Your task to perform on an android device: install app "Adobe Acrobat Reader: Edit PDF" Image 0: 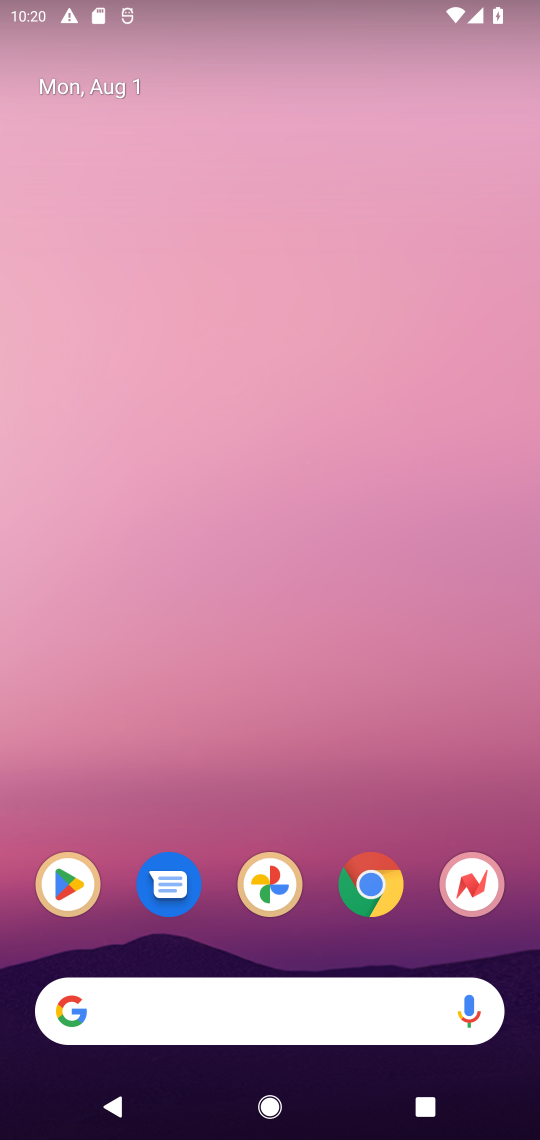
Step 0: press home button
Your task to perform on an android device: install app "Adobe Acrobat Reader: Edit PDF" Image 1: 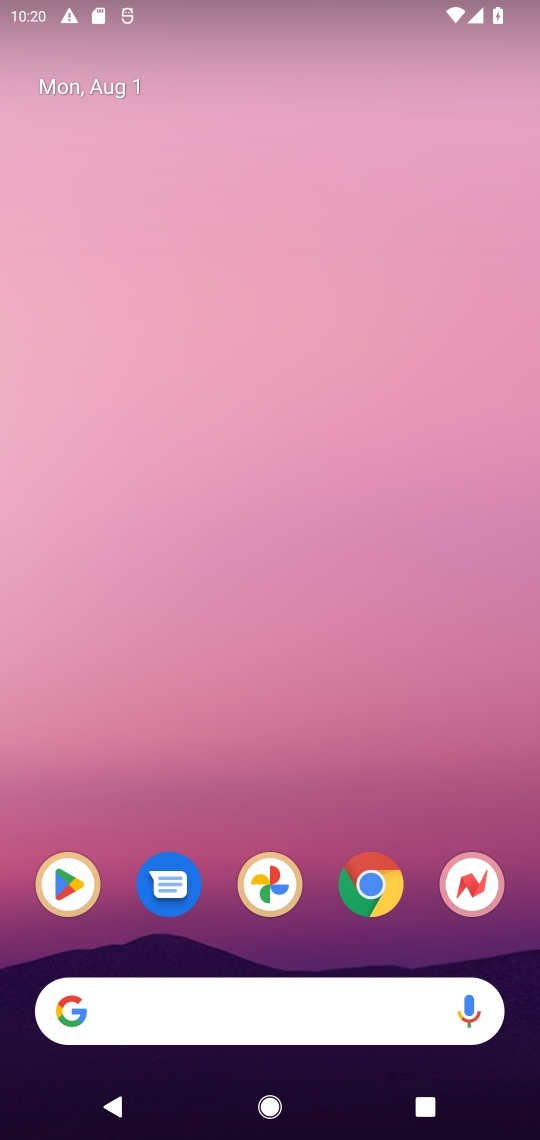
Step 1: click (85, 890)
Your task to perform on an android device: install app "Adobe Acrobat Reader: Edit PDF" Image 2: 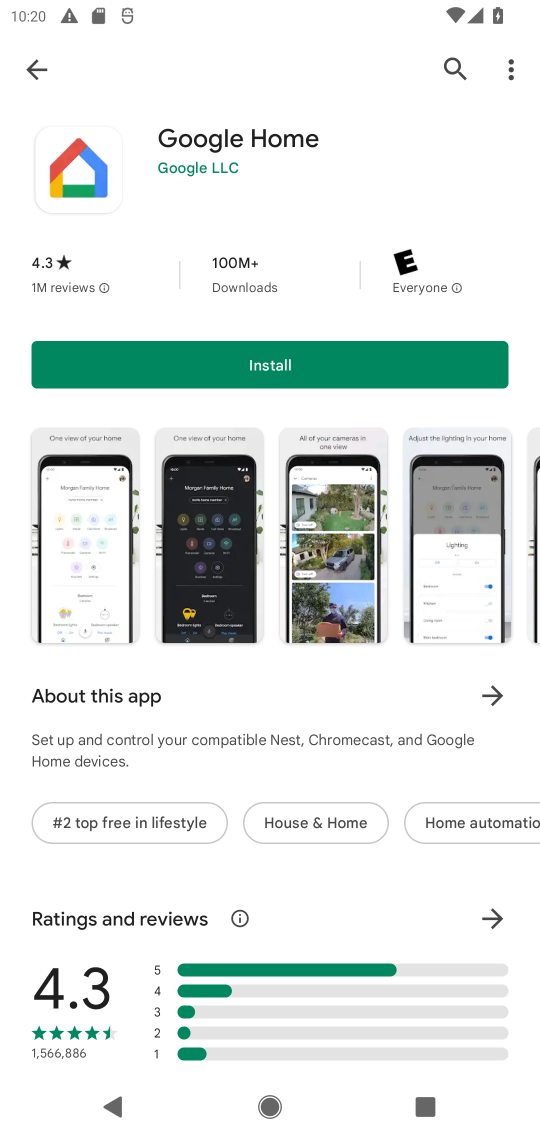
Step 2: click (459, 65)
Your task to perform on an android device: install app "Adobe Acrobat Reader: Edit PDF" Image 3: 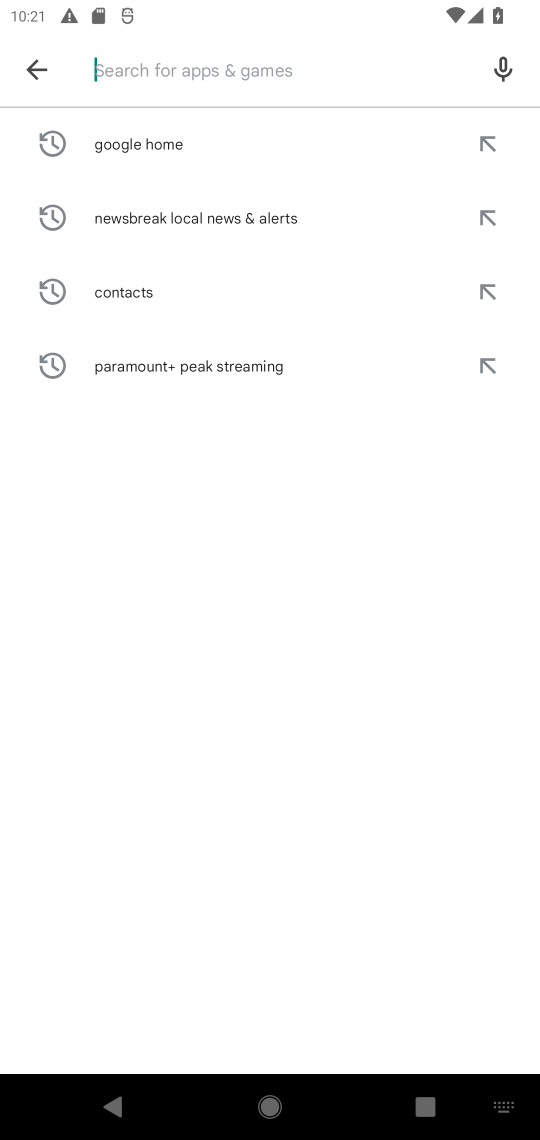
Step 3: type "adobe acrobat reader: edit pdf"
Your task to perform on an android device: install app "Adobe Acrobat Reader: Edit PDF" Image 4: 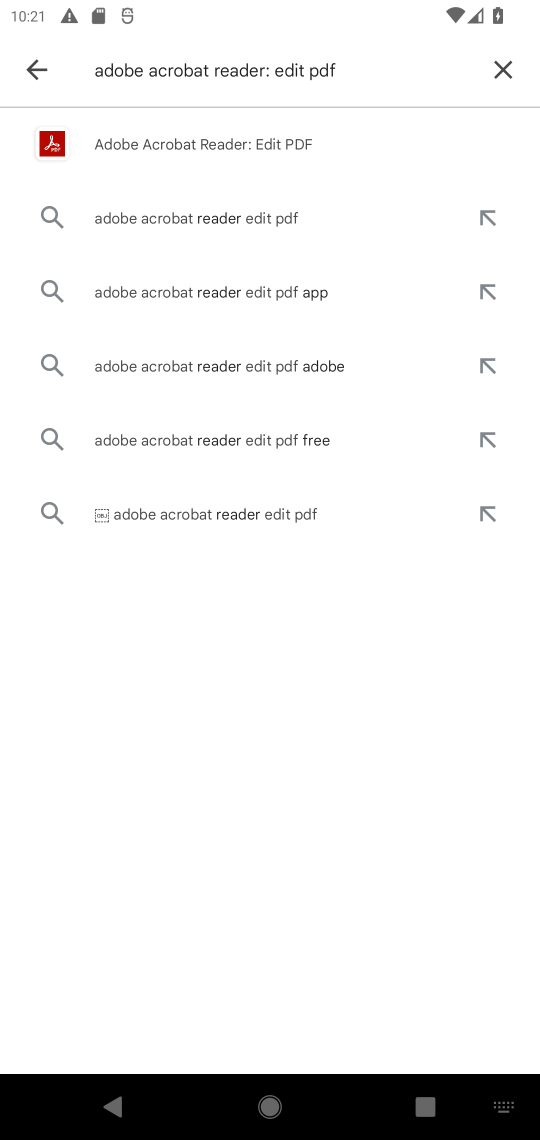
Step 4: click (225, 149)
Your task to perform on an android device: install app "Adobe Acrobat Reader: Edit PDF" Image 5: 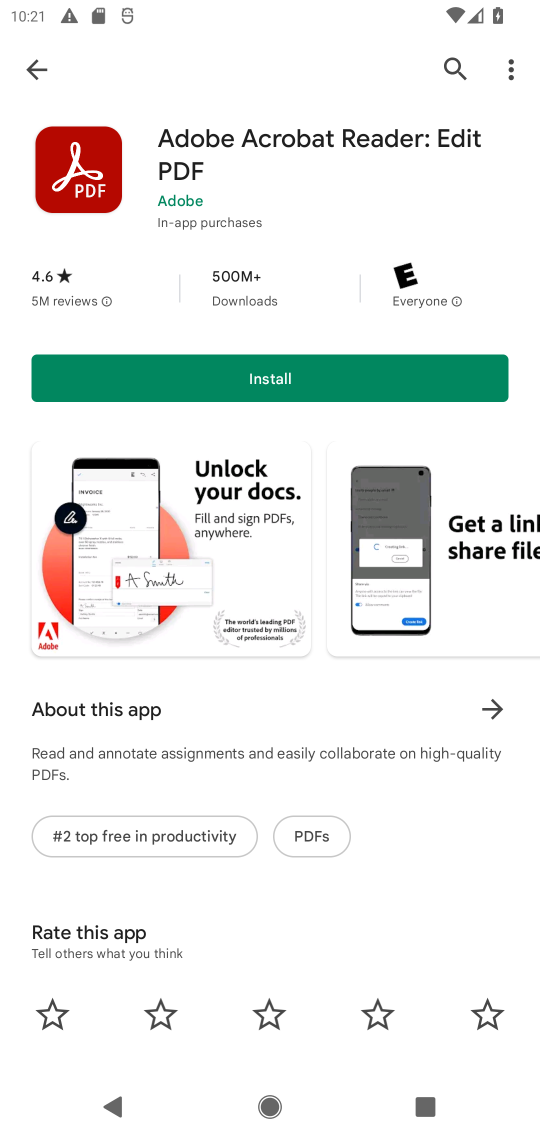
Step 5: click (203, 375)
Your task to perform on an android device: install app "Adobe Acrobat Reader: Edit PDF" Image 6: 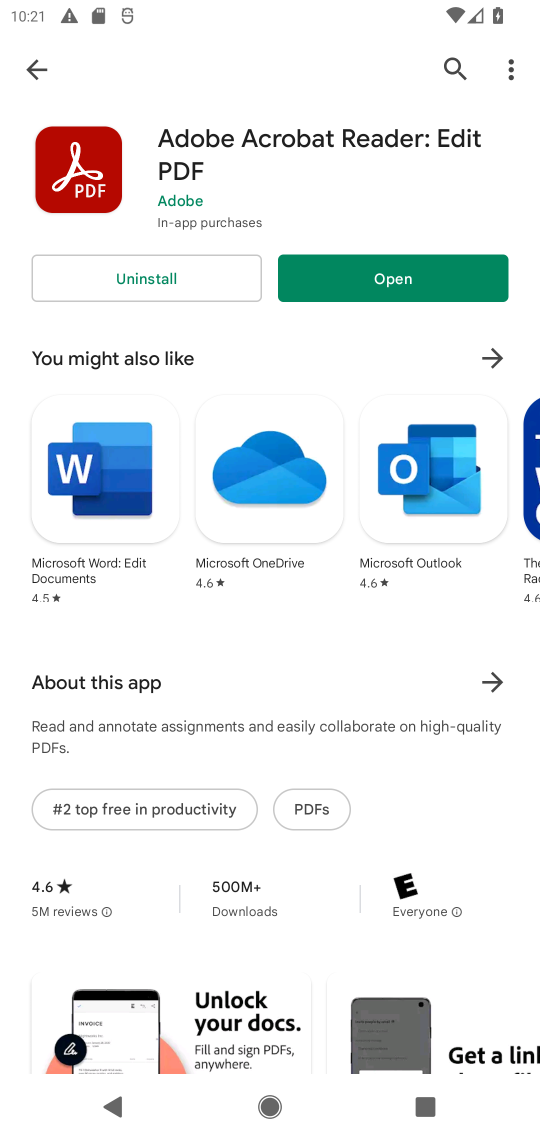
Step 6: task complete